Your task to perform on an android device: Go to wifi settings Image 0: 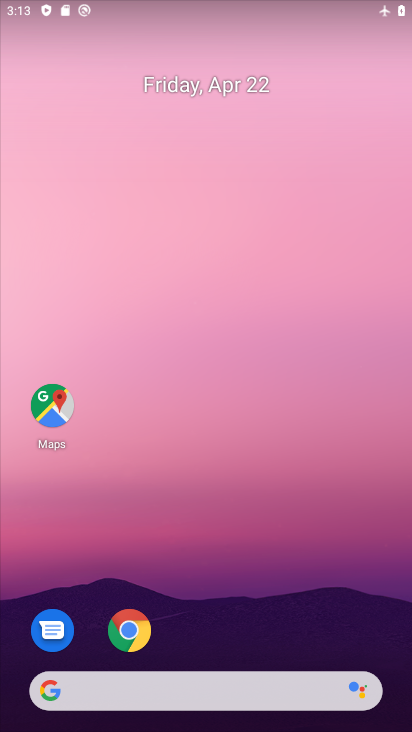
Step 0: drag from (210, 646) to (247, 2)
Your task to perform on an android device: Go to wifi settings Image 1: 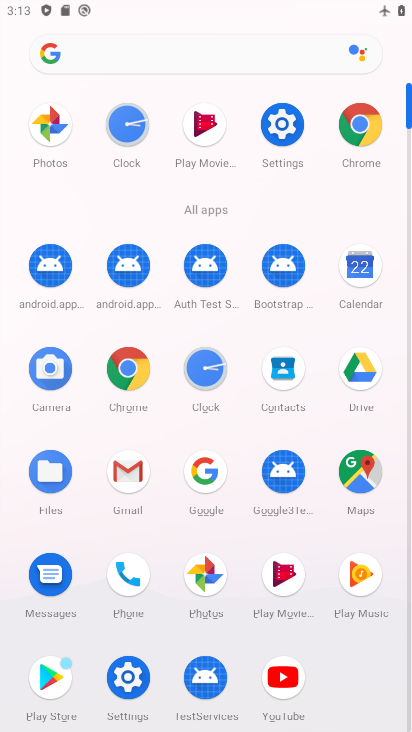
Step 1: click (280, 146)
Your task to perform on an android device: Go to wifi settings Image 2: 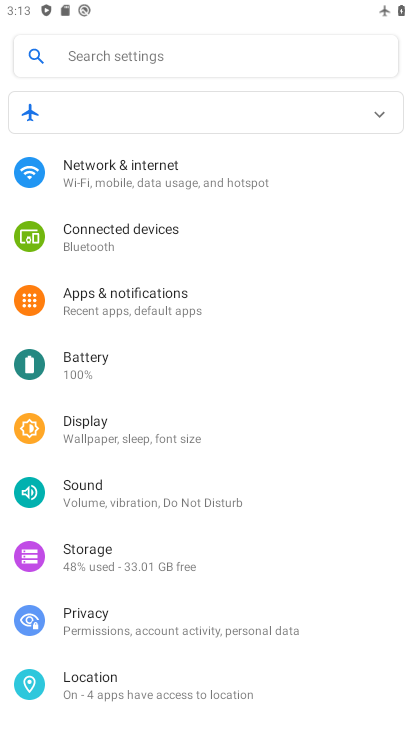
Step 2: click (172, 186)
Your task to perform on an android device: Go to wifi settings Image 3: 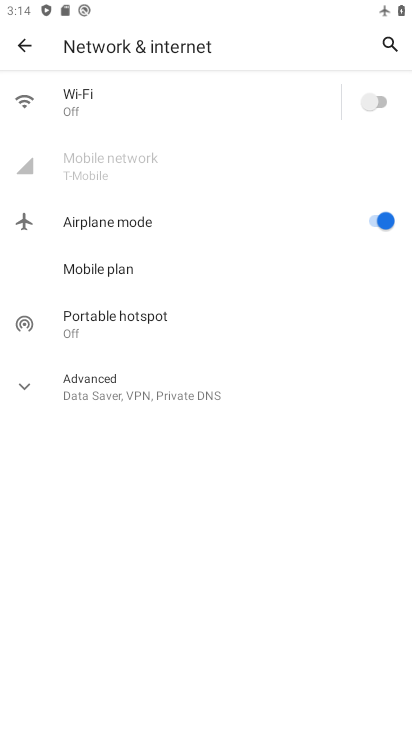
Step 3: click (158, 105)
Your task to perform on an android device: Go to wifi settings Image 4: 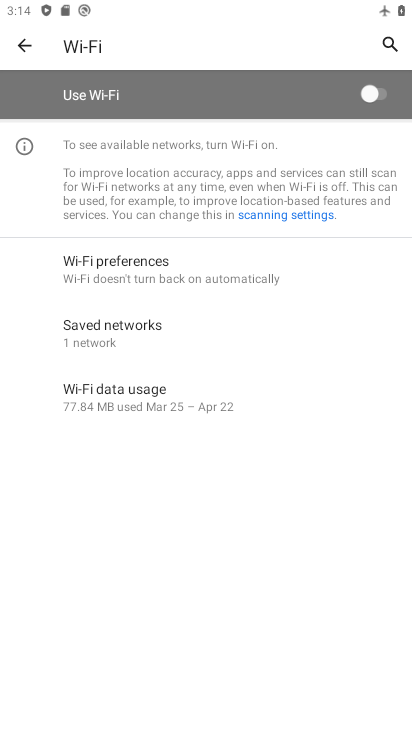
Step 4: task complete